Your task to perform on an android device: toggle wifi Image 0: 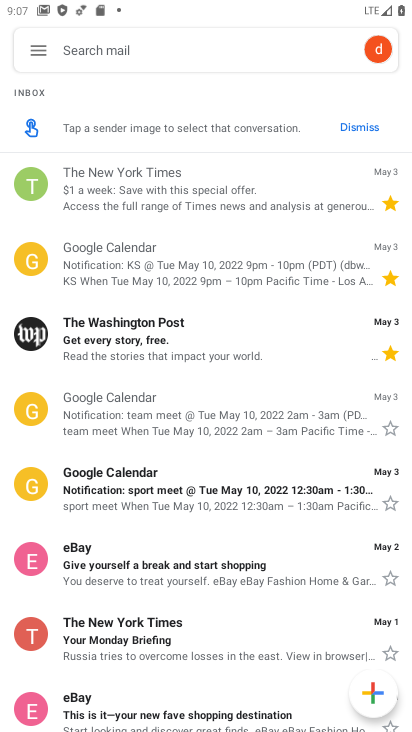
Step 0: press home button
Your task to perform on an android device: toggle wifi Image 1: 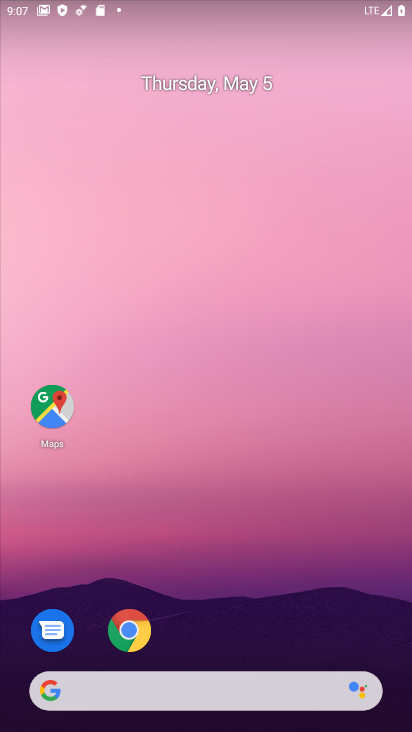
Step 1: drag from (215, 596) to (101, 82)
Your task to perform on an android device: toggle wifi Image 2: 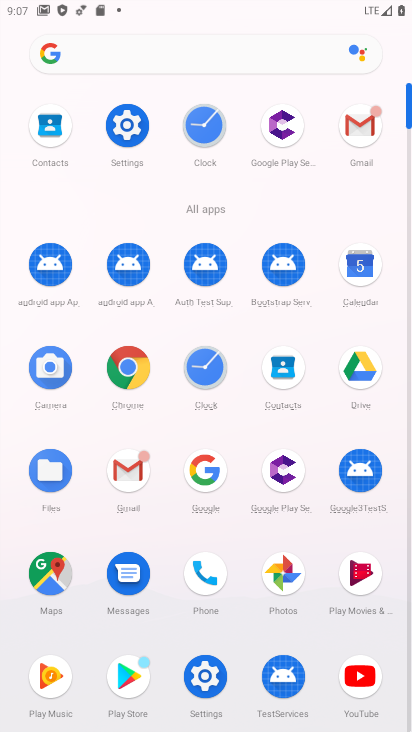
Step 2: click (132, 117)
Your task to perform on an android device: toggle wifi Image 3: 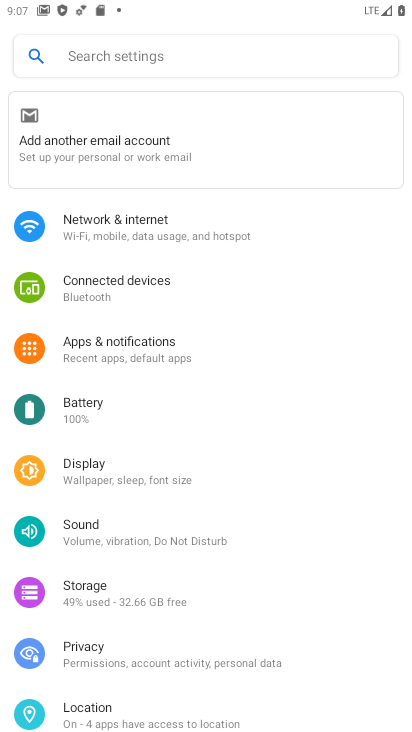
Step 3: click (169, 234)
Your task to perform on an android device: toggle wifi Image 4: 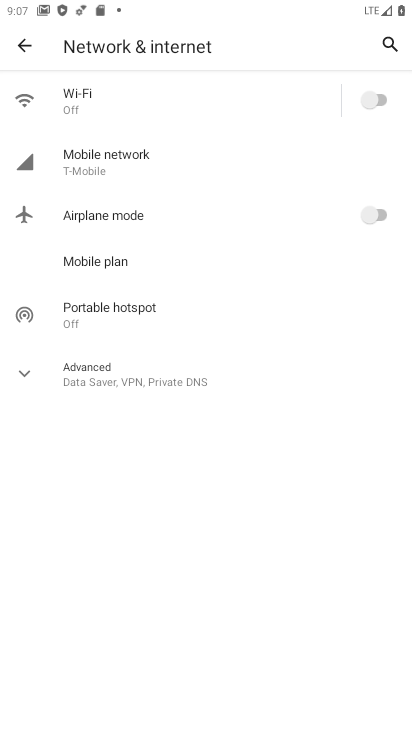
Step 4: click (376, 100)
Your task to perform on an android device: toggle wifi Image 5: 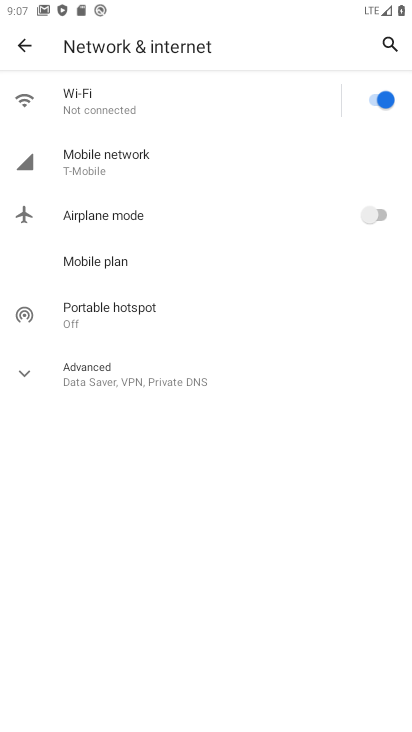
Step 5: task complete